Your task to perform on an android device: Open calendar and show me the second week of next month Image 0: 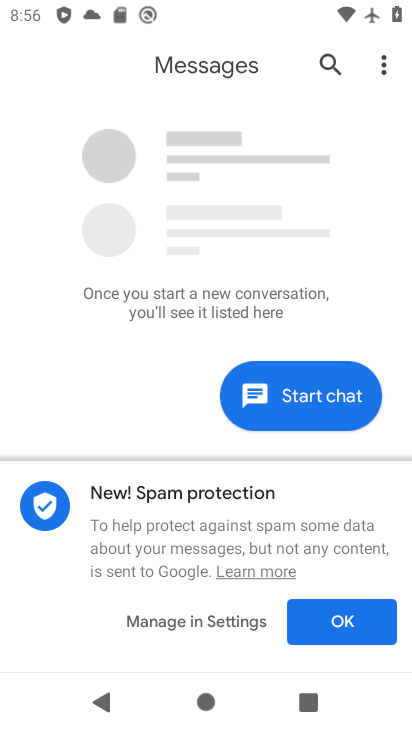
Step 0: press home button
Your task to perform on an android device: Open calendar and show me the second week of next month Image 1: 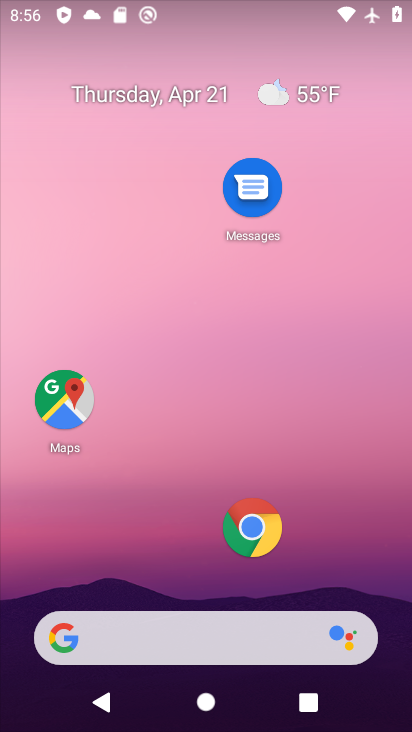
Step 1: drag from (148, 632) to (327, 114)
Your task to perform on an android device: Open calendar and show me the second week of next month Image 2: 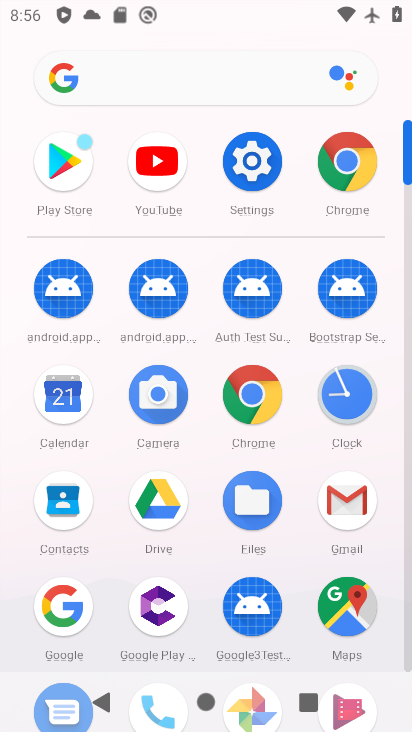
Step 2: click (69, 413)
Your task to perform on an android device: Open calendar and show me the second week of next month Image 3: 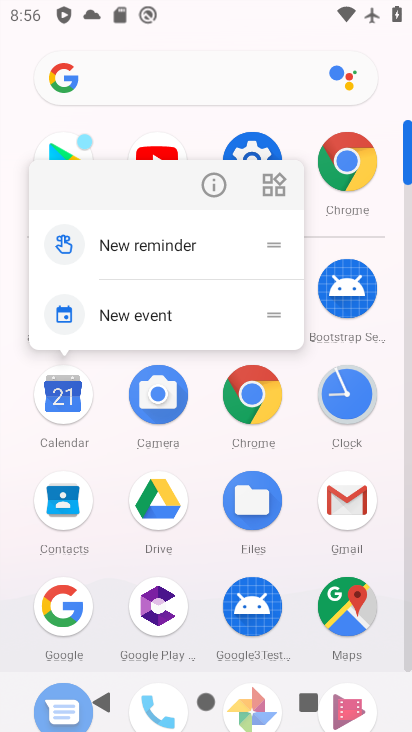
Step 3: click (69, 400)
Your task to perform on an android device: Open calendar and show me the second week of next month Image 4: 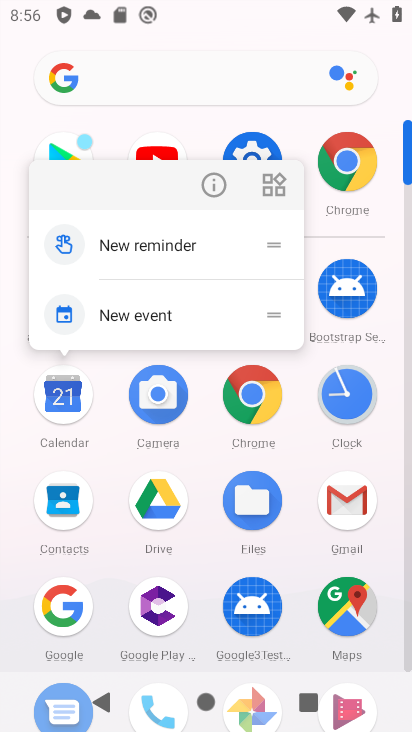
Step 4: click (59, 397)
Your task to perform on an android device: Open calendar and show me the second week of next month Image 5: 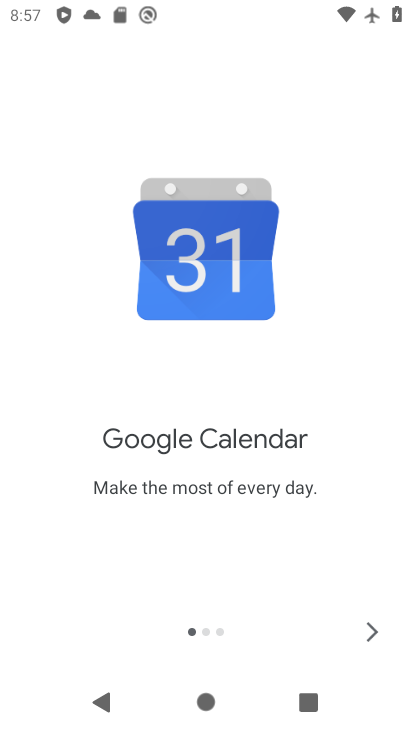
Step 5: click (368, 624)
Your task to perform on an android device: Open calendar and show me the second week of next month Image 6: 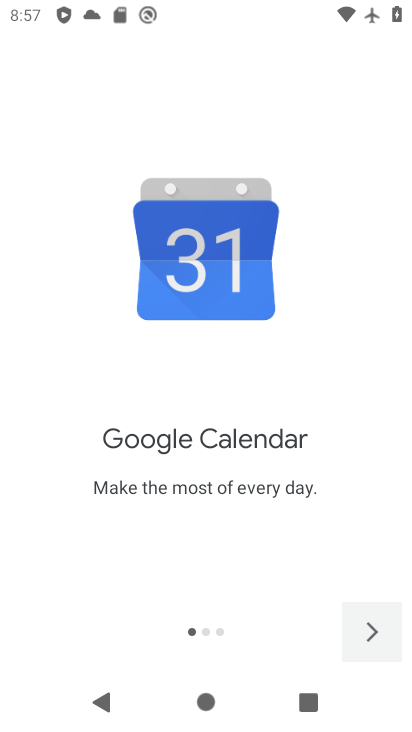
Step 6: click (368, 624)
Your task to perform on an android device: Open calendar and show me the second week of next month Image 7: 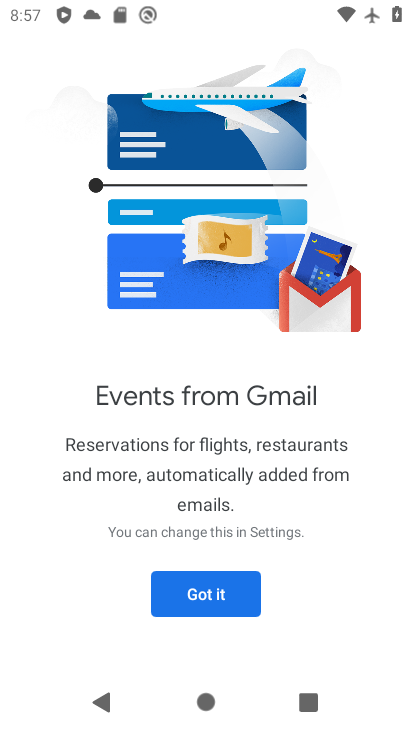
Step 7: click (237, 593)
Your task to perform on an android device: Open calendar and show me the second week of next month Image 8: 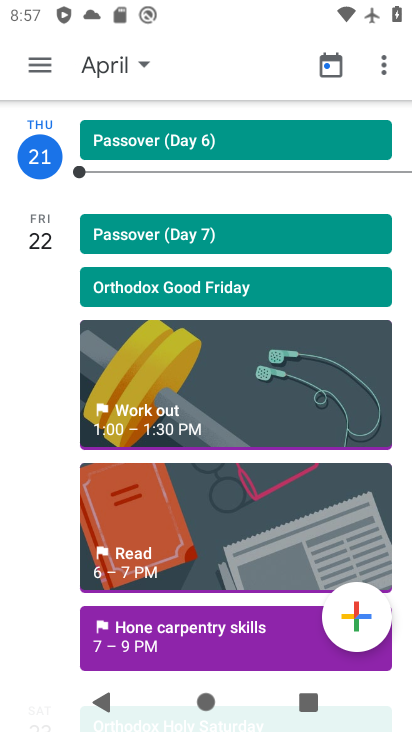
Step 8: click (97, 71)
Your task to perform on an android device: Open calendar and show me the second week of next month Image 9: 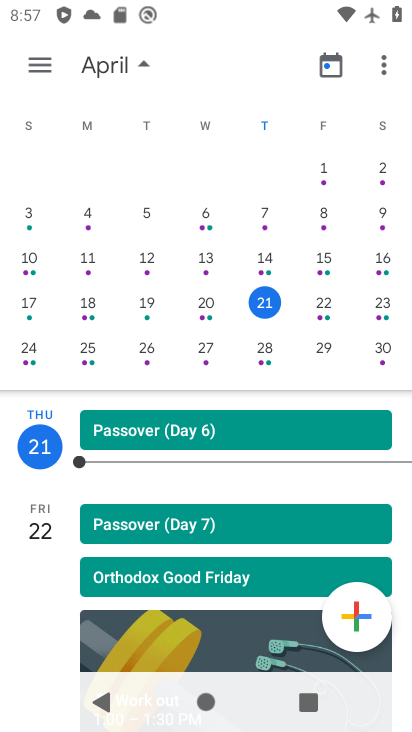
Step 9: drag from (368, 292) to (24, 298)
Your task to perform on an android device: Open calendar and show me the second week of next month Image 10: 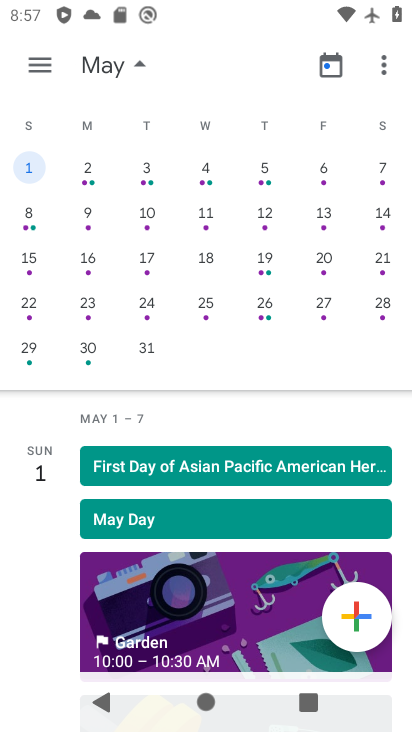
Step 10: click (28, 213)
Your task to perform on an android device: Open calendar and show me the second week of next month Image 11: 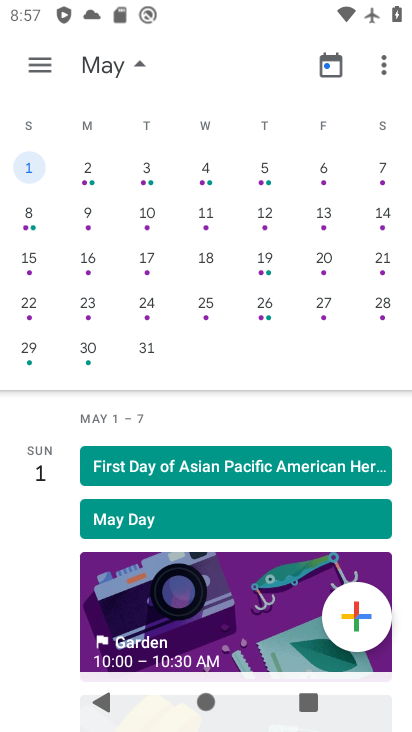
Step 11: click (35, 210)
Your task to perform on an android device: Open calendar and show me the second week of next month Image 12: 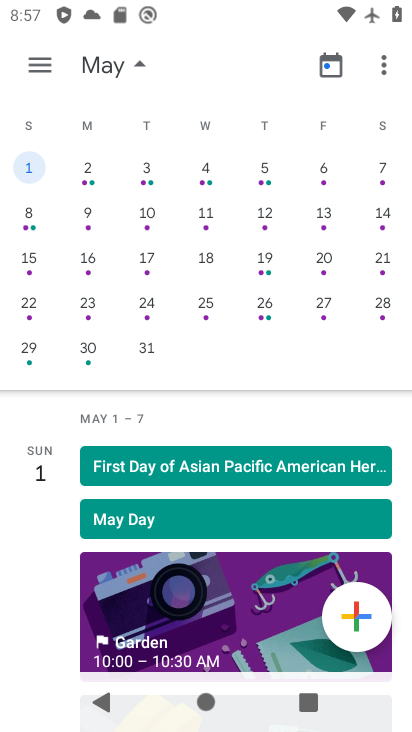
Step 12: click (27, 218)
Your task to perform on an android device: Open calendar and show me the second week of next month Image 13: 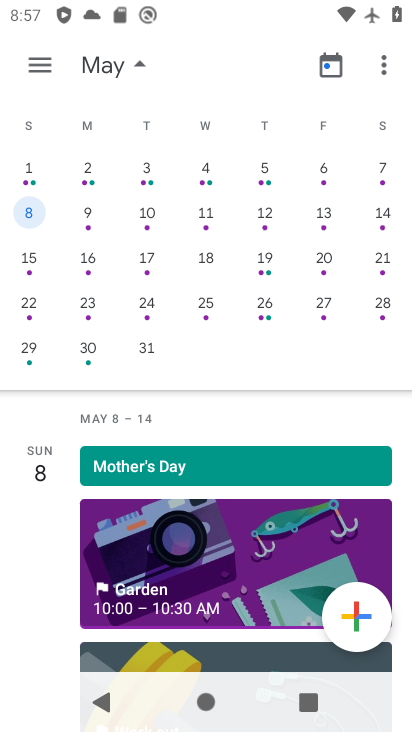
Step 13: click (36, 63)
Your task to perform on an android device: Open calendar and show me the second week of next month Image 14: 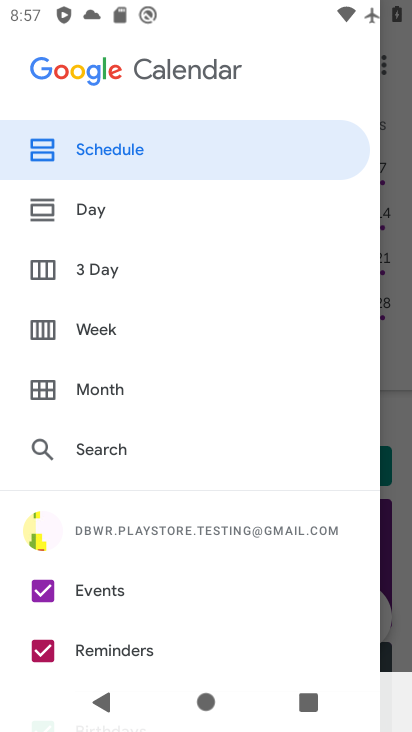
Step 14: click (99, 325)
Your task to perform on an android device: Open calendar and show me the second week of next month Image 15: 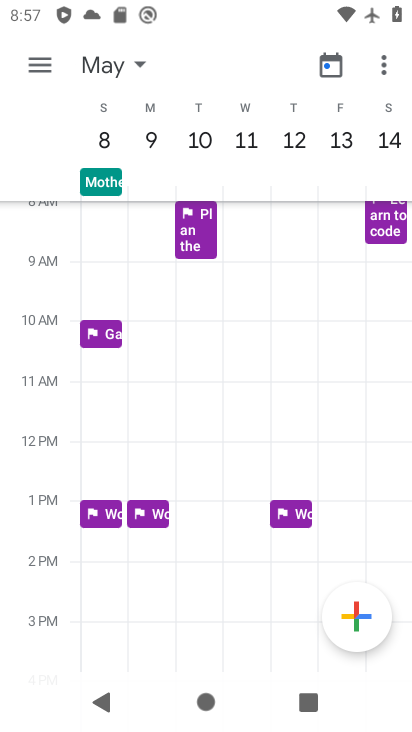
Step 15: task complete